Your task to perform on an android device: Open Yahoo.com Image 0: 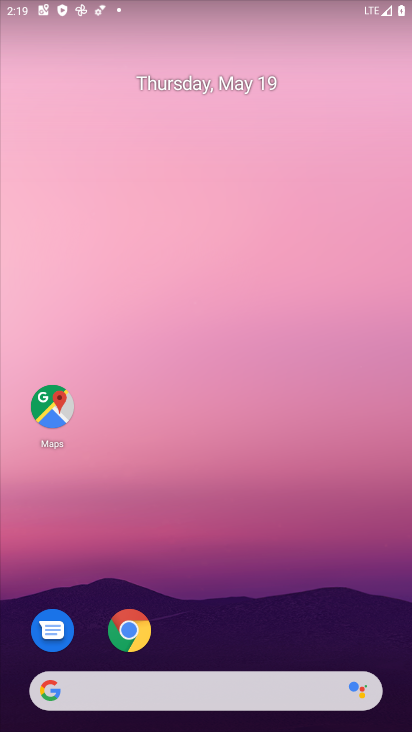
Step 0: click (127, 632)
Your task to perform on an android device: Open Yahoo.com Image 1: 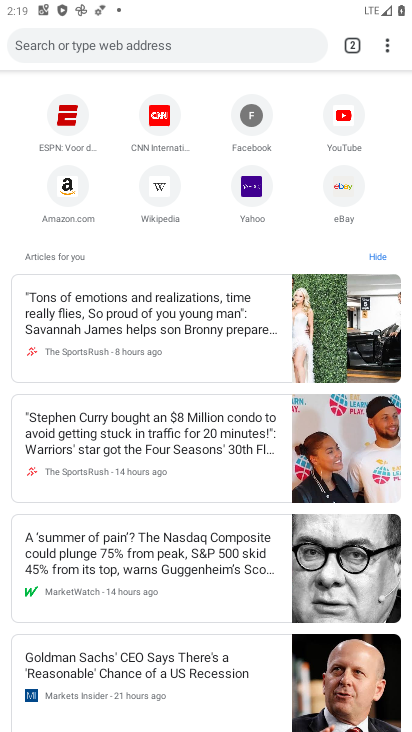
Step 1: click (100, 40)
Your task to perform on an android device: Open Yahoo.com Image 2: 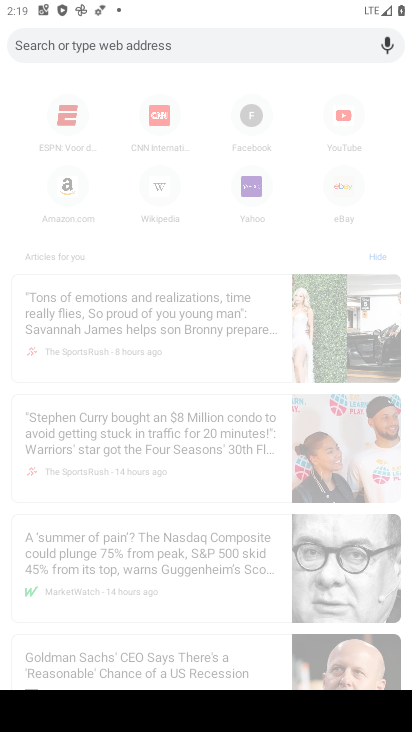
Step 2: type "yahoo.com"
Your task to perform on an android device: Open Yahoo.com Image 3: 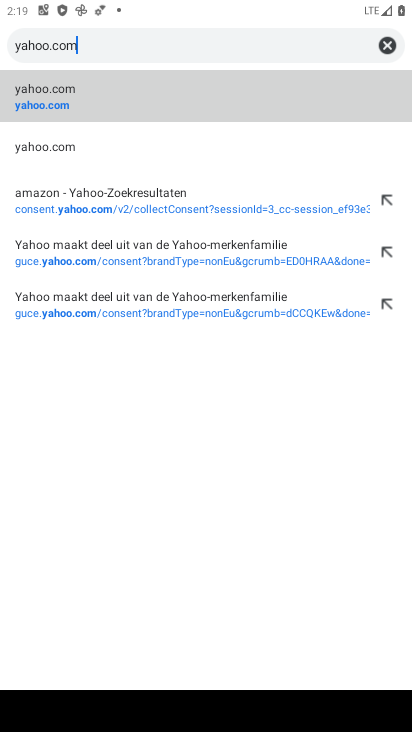
Step 3: click (53, 93)
Your task to perform on an android device: Open Yahoo.com Image 4: 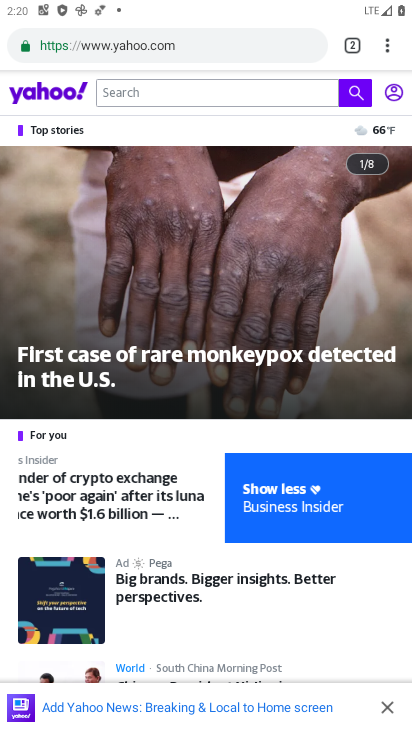
Step 4: task complete